Your task to perform on an android device: Do I have any events today? Image 0: 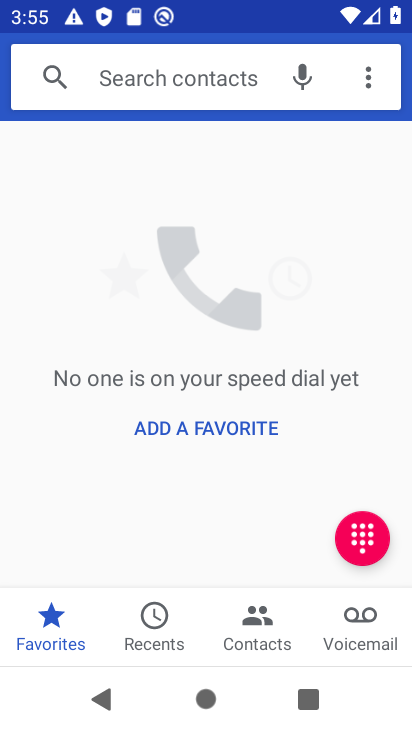
Step 0: press home button
Your task to perform on an android device: Do I have any events today? Image 1: 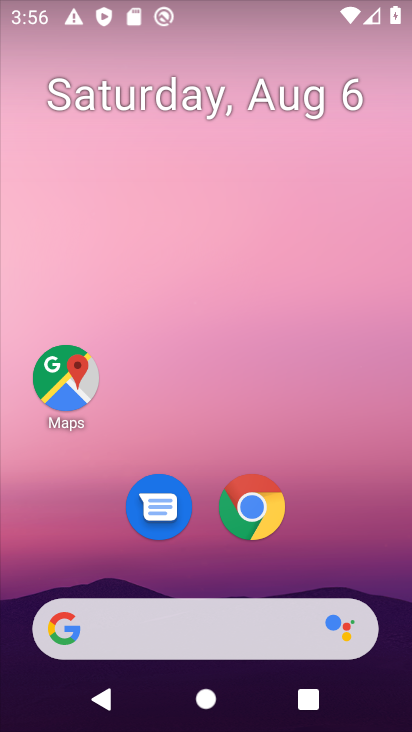
Step 1: drag from (243, 450) to (275, 165)
Your task to perform on an android device: Do I have any events today? Image 2: 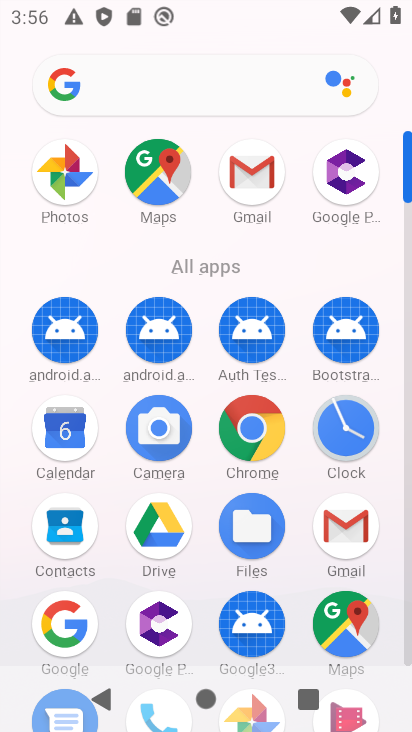
Step 2: drag from (216, 490) to (235, 200)
Your task to perform on an android device: Do I have any events today? Image 3: 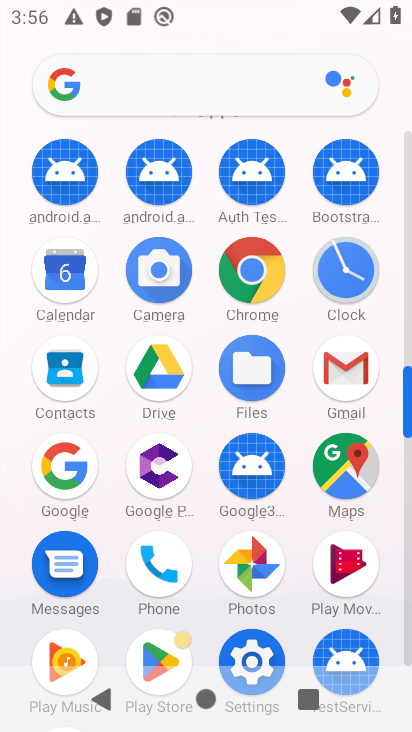
Step 3: click (49, 264)
Your task to perform on an android device: Do I have any events today? Image 4: 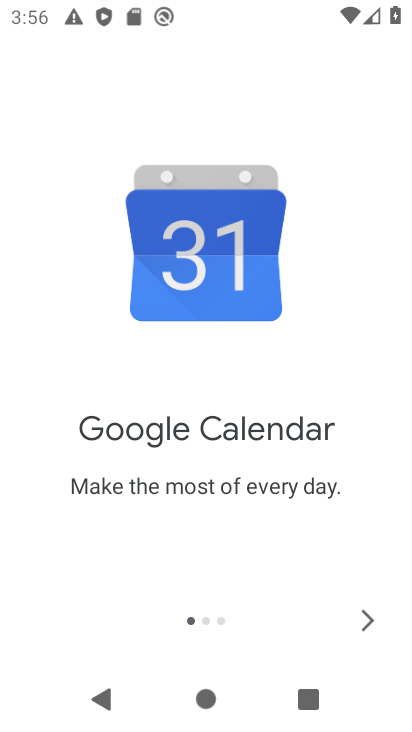
Step 4: click (369, 617)
Your task to perform on an android device: Do I have any events today? Image 5: 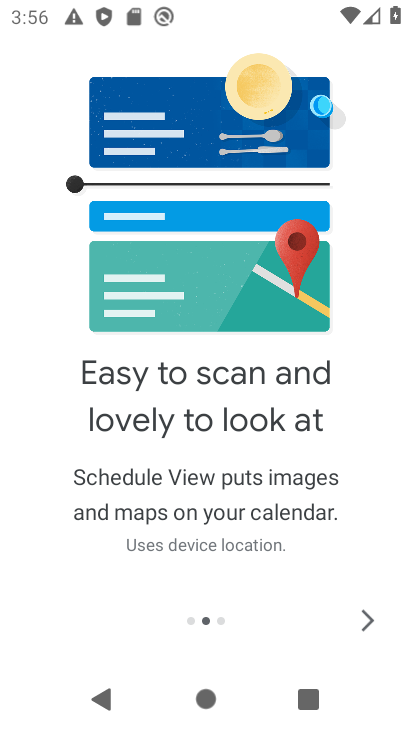
Step 5: click (358, 619)
Your task to perform on an android device: Do I have any events today? Image 6: 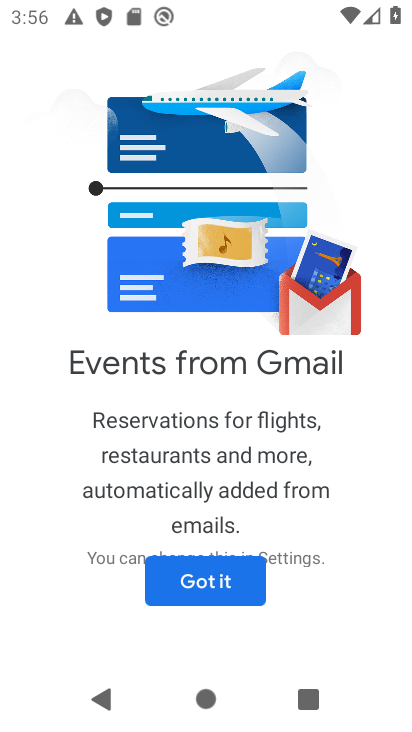
Step 6: click (238, 573)
Your task to perform on an android device: Do I have any events today? Image 7: 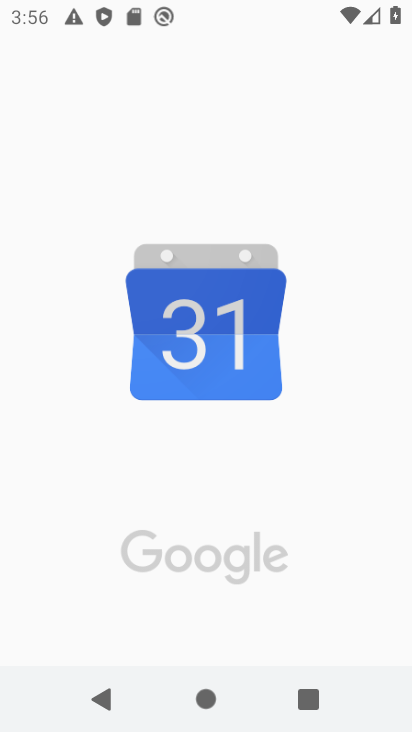
Step 7: task complete